Your task to perform on an android device: turn off airplane mode Image 0: 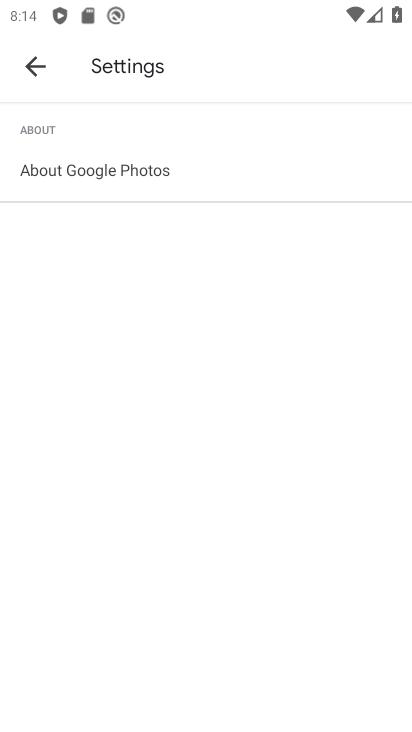
Step 0: press home button
Your task to perform on an android device: turn off airplane mode Image 1: 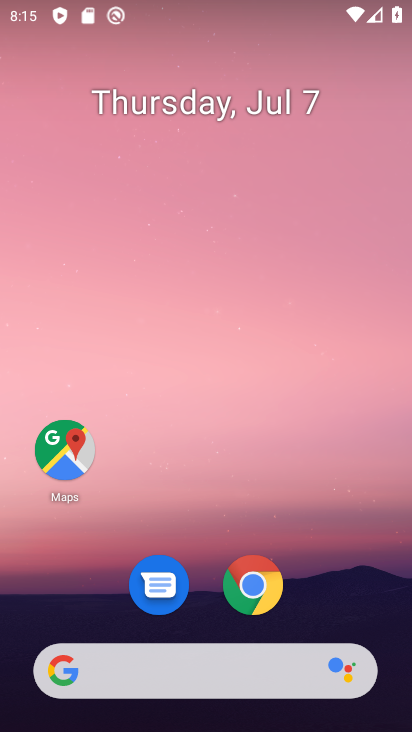
Step 1: drag from (275, 473) to (237, 45)
Your task to perform on an android device: turn off airplane mode Image 2: 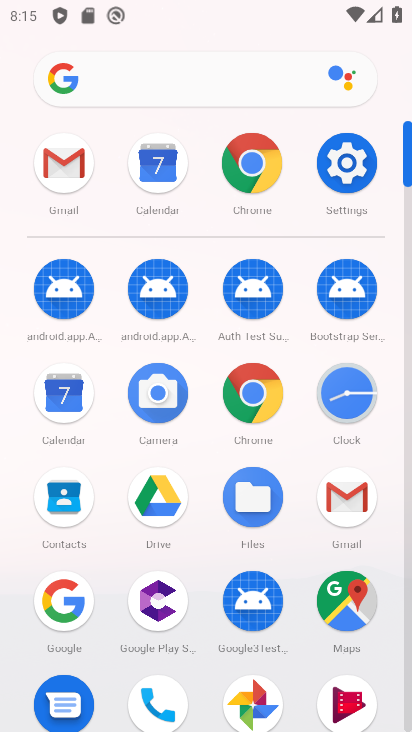
Step 2: click (341, 168)
Your task to perform on an android device: turn off airplane mode Image 3: 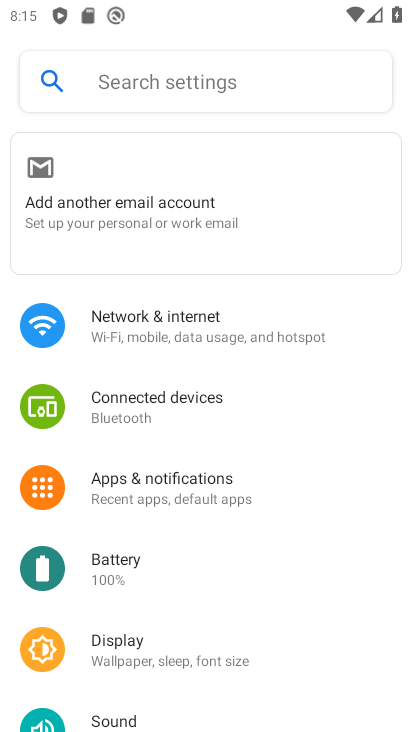
Step 3: click (224, 327)
Your task to perform on an android device: turn off airplane mode Image 4: 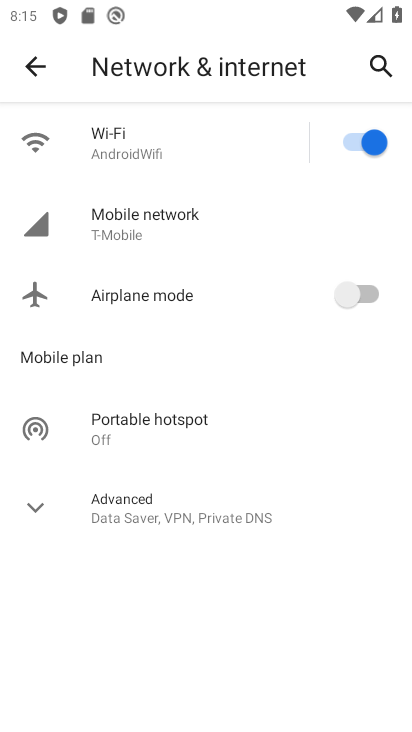
Step 4: task complete